Your task to perform on an android device: change the upload size in google photos Image 0: 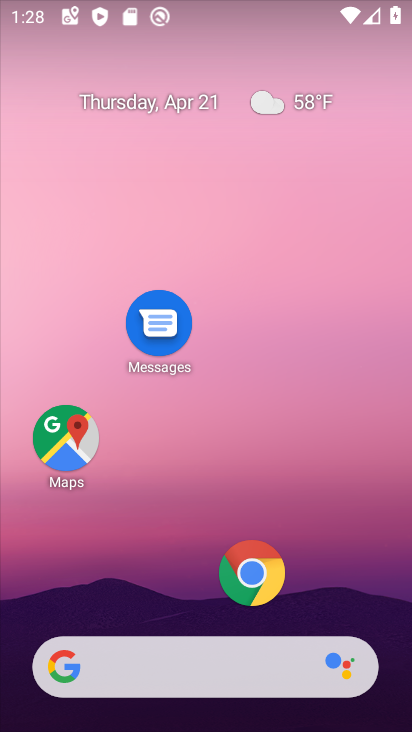
Step 0: drag from (175, 569) to (165, 83)
Your task to perform on an android device: change the upload size in google photos Image 1: 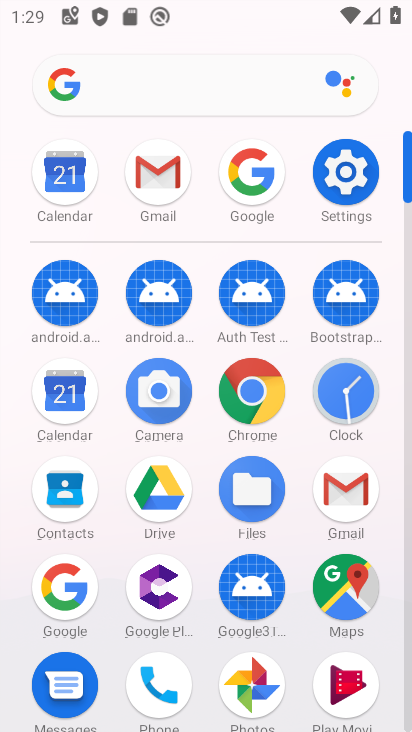
Step 1: click (249, 673)
Your task to perform on an android device: change the upload size in google photos Image 2: 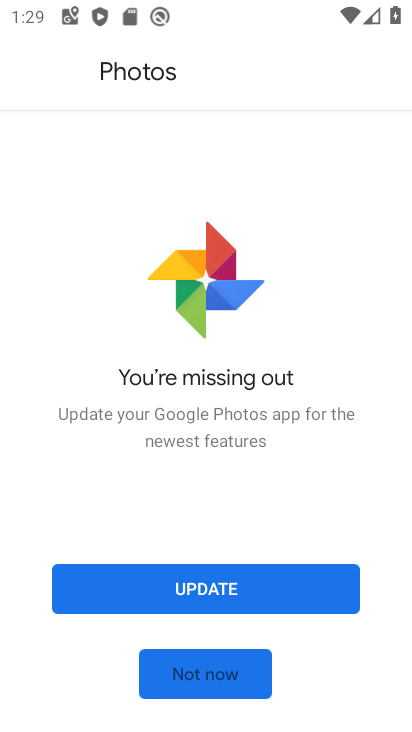
Step 2: click (199, 669)
Your task to perform on an android device: change the upload size in google photos Image 3: 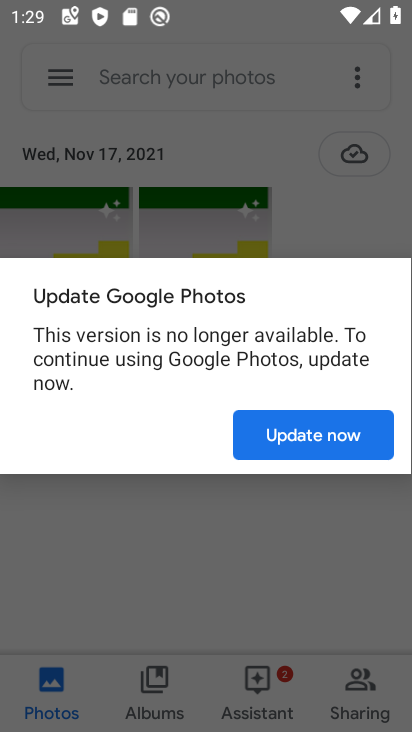
Step 3: click (299, 428)
Your task to perform on an android device: change the upload size in google photos Image 4: 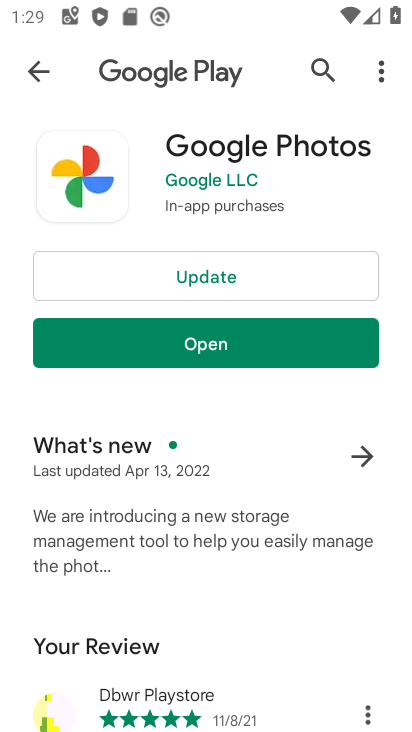
Step 4: click (187, 337)
Your task to perform on an android device: change the upload size in google photos Image 5: 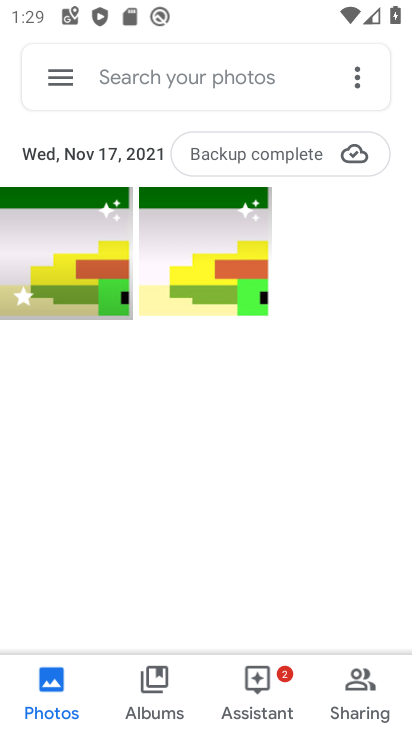
Step 5: click (59, 83)
Your task to perform on an android device: change the upload size in google photos Image 6: 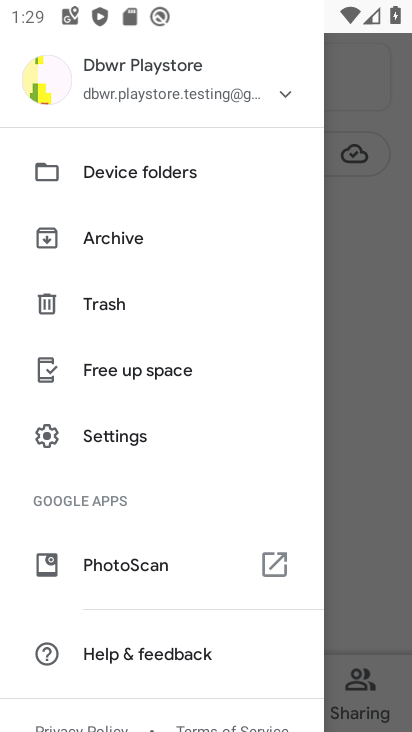
Step 6: click (108, 438)
Your task to perform on an android device: change the upload size in google photos Image 7: 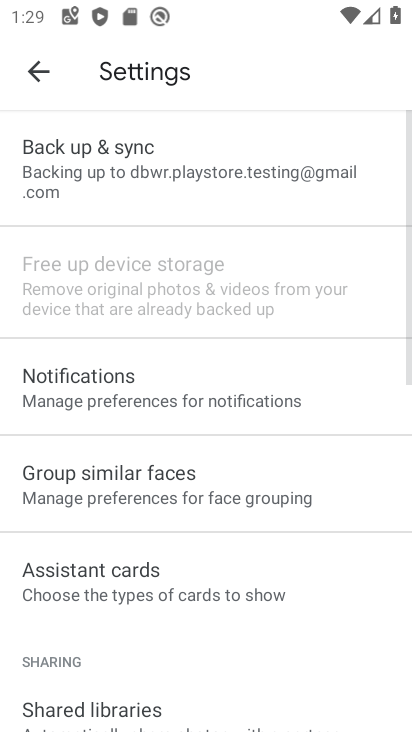
Step 7: click (81, 160)
Your task to perform on an android device: change the upload size in google photos Image 8: 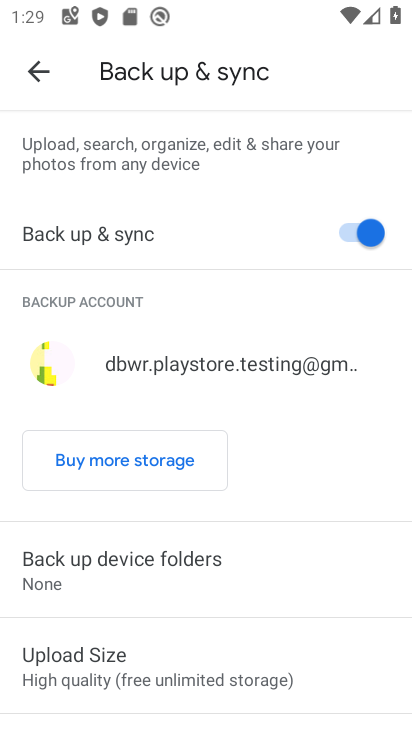
Step 8: click (119, 674)
Your task to perform on an android device: change the upload size in google photos Image 9: 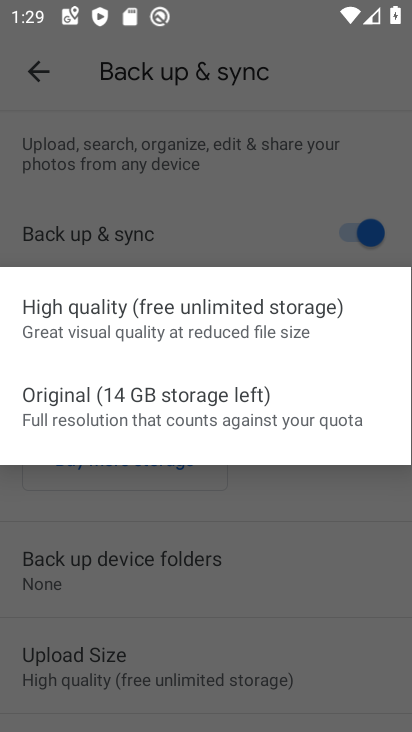
Step 9: click (103, 414)
Your task to perform on an android device: change the upload size in google photos Image 10: 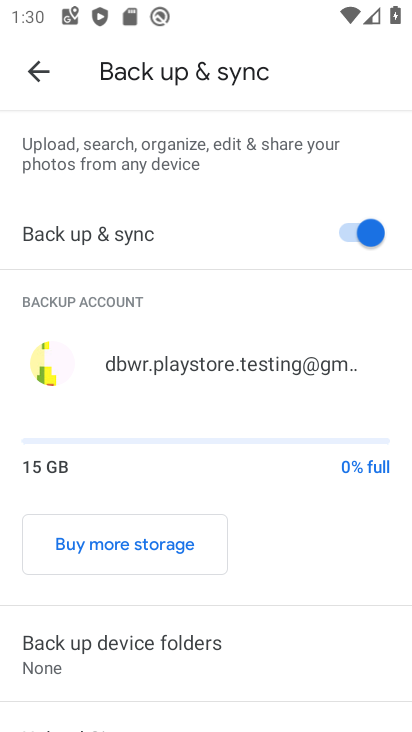
Step 10: task complete